Your task to perform on an android device: Show me popular videos on Youtube Image 0: 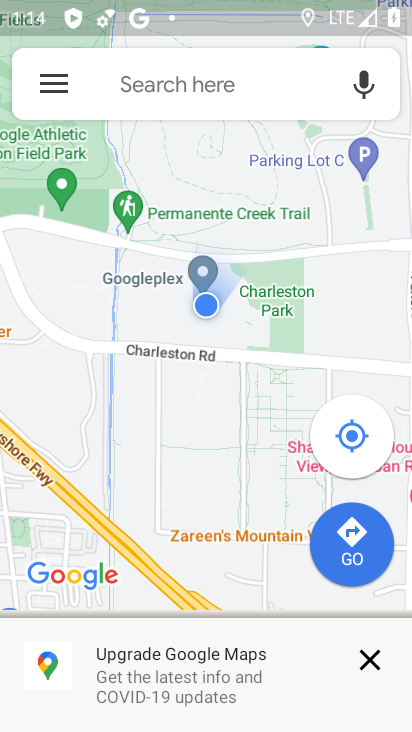
Step 0: press back button
Your task to perform on an android device: Show me popular videos on Youtube Image 1: 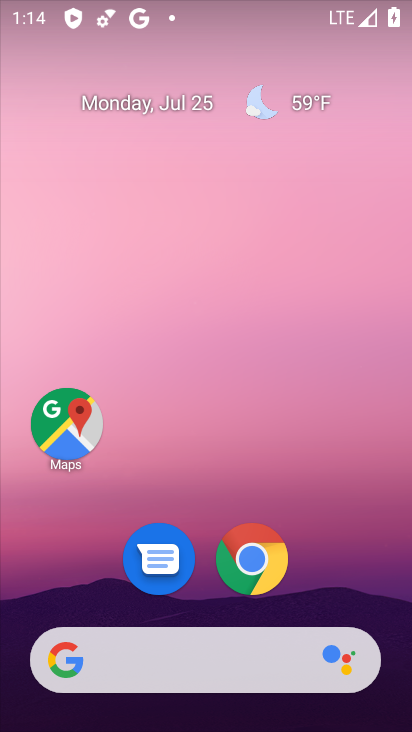
Step 1: drag from (88, 587) to (275, 70)
Your task to perform on an android device: Show me popular videos on Youtube Image 2: 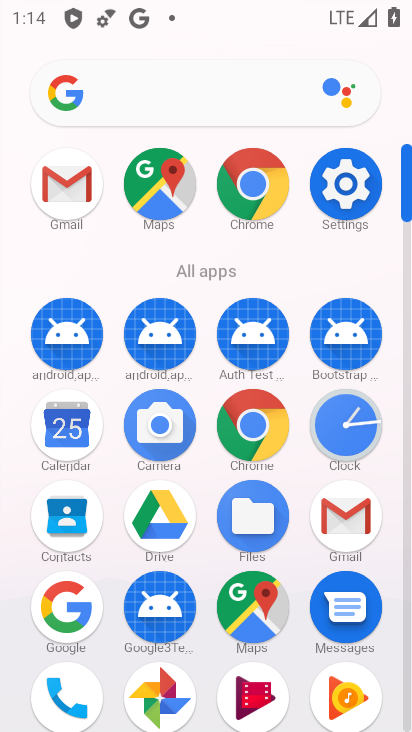
Step 2: drag from (238, 652) to (329, 23)
Your task to perform on an android device: Show me popular videos on Youtube Image 3: 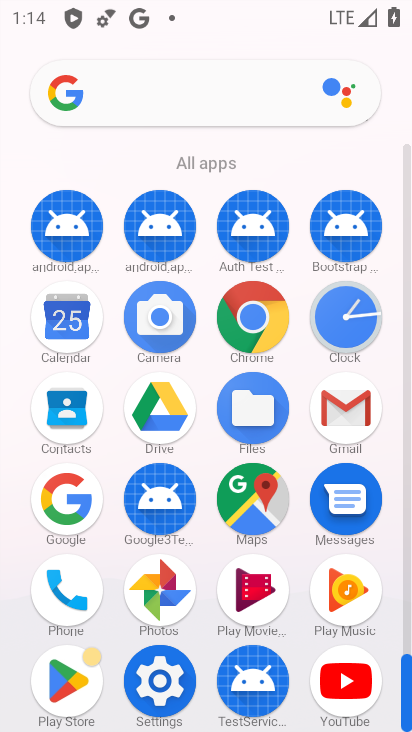
Step 3: click (335, 694)
Your task to perform on an android device: Show me popular videos on Youtube Image 4: 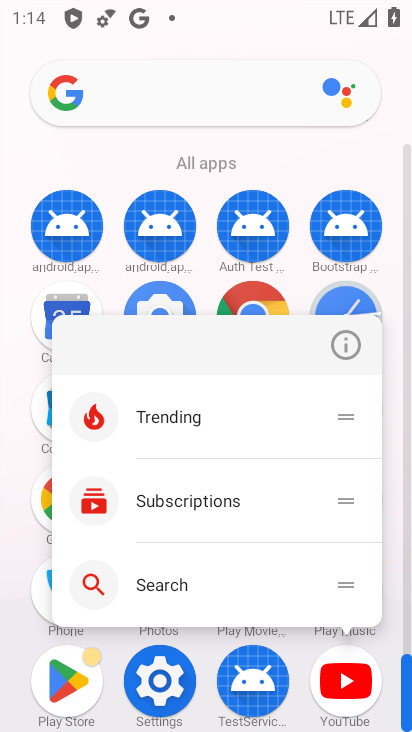
Step 4: click (346, 679)
Your task to perform on an android device: Show me popular videos on Youtube Image 5: 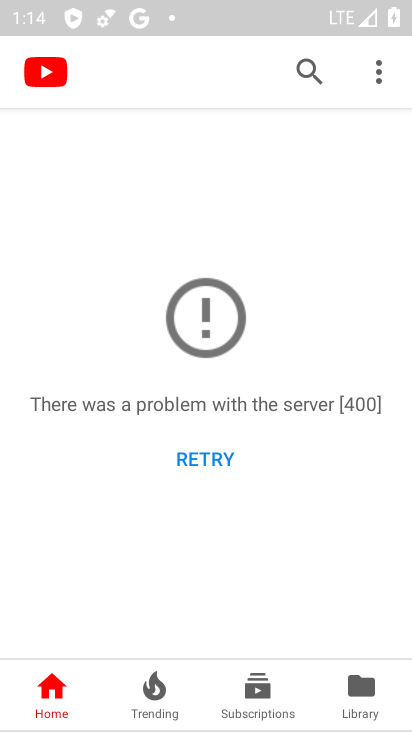
Step 5: click (355, 695)
Your task to perform on an android device: Show me popular videos on Youtube Image 6: 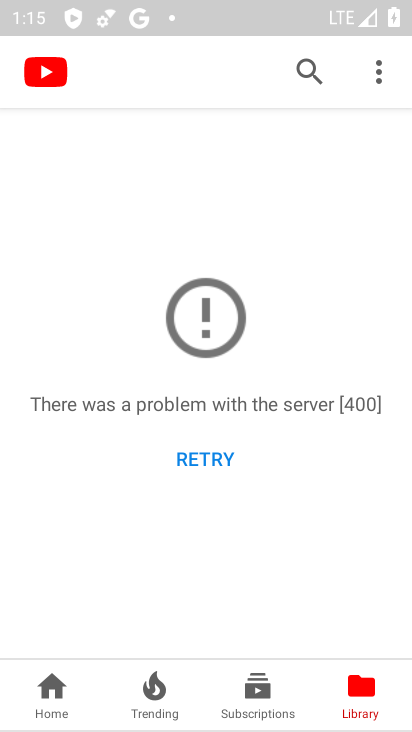
Step 6: task complete